Your task to perform on an android device: Clear the shopping cart on costco.com. Add "acer predator" to the cart on costco.com, then select checkout. Image 0: 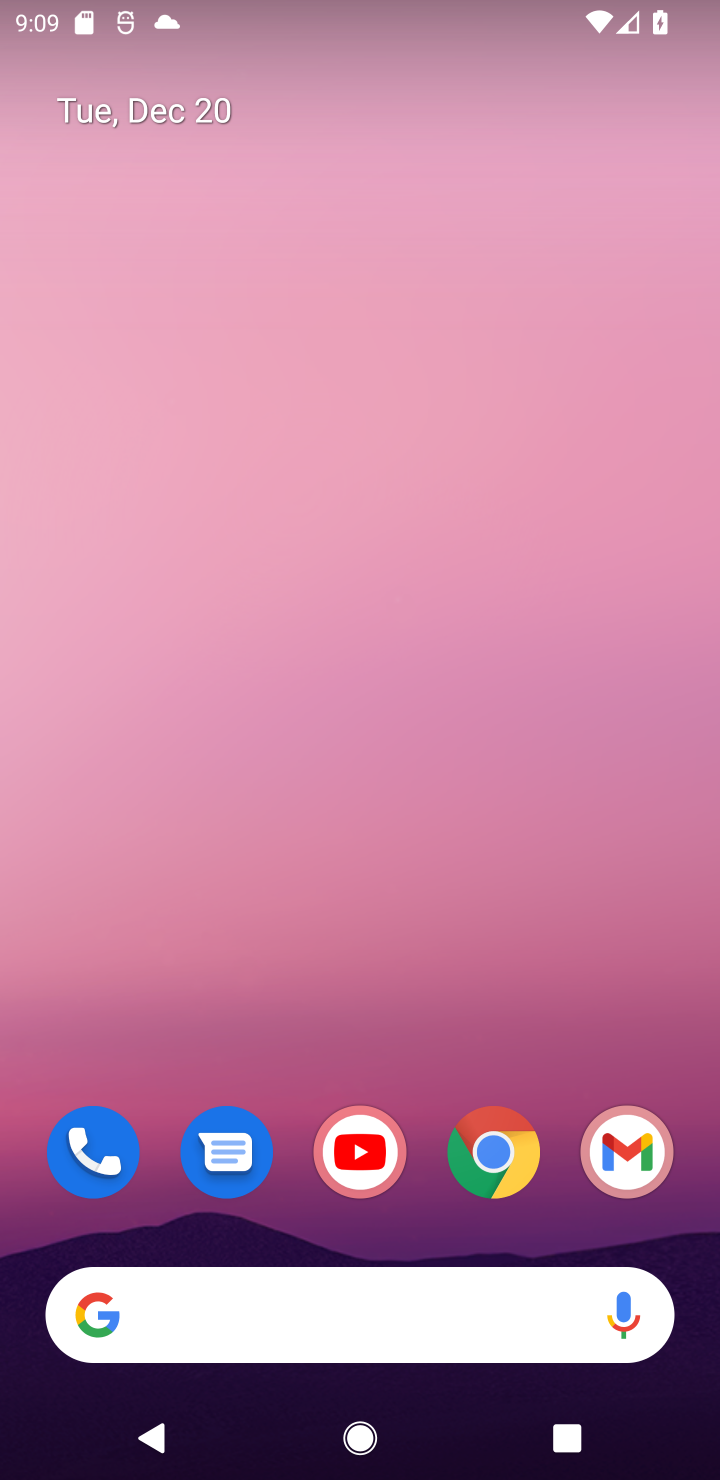
Step 0: click (477, 1143)
Your task to perform on an android device: Clear the shopping cart on costco.com. Add "acer predator" to the cart on costco.com, then select checkout. Image 1: 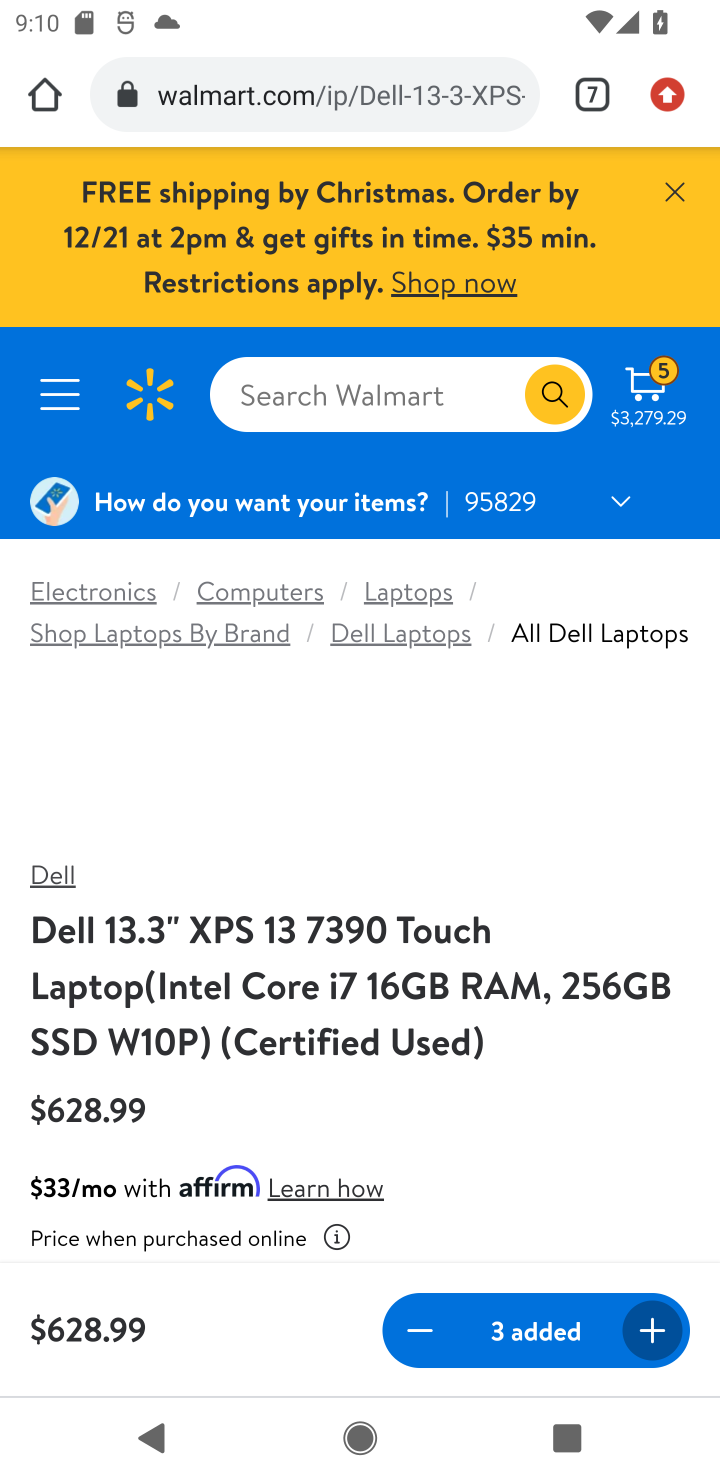
Step 1: click (659, 373)
Your task to perform on an android device: Clear the shopping cart on costco.com. Add "acer predator" to the cart on costco.com, then select checkout. Image 2: 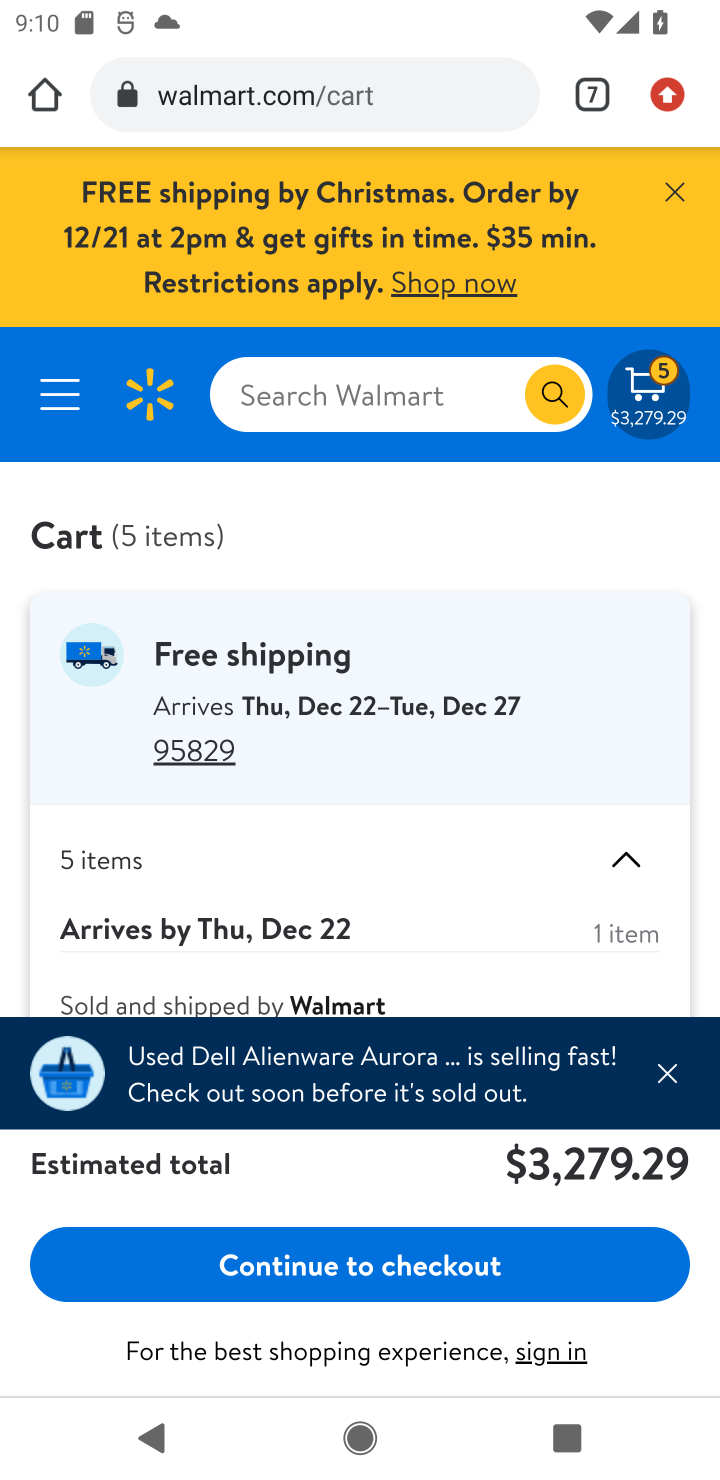
Step 2: drag from (553, 825) to (604, 279)
Your task to perform on an android device: Clear the shopping cart on costco.com. Add "acer predator" to the cart on costco.com, then select checkout. Image 3: 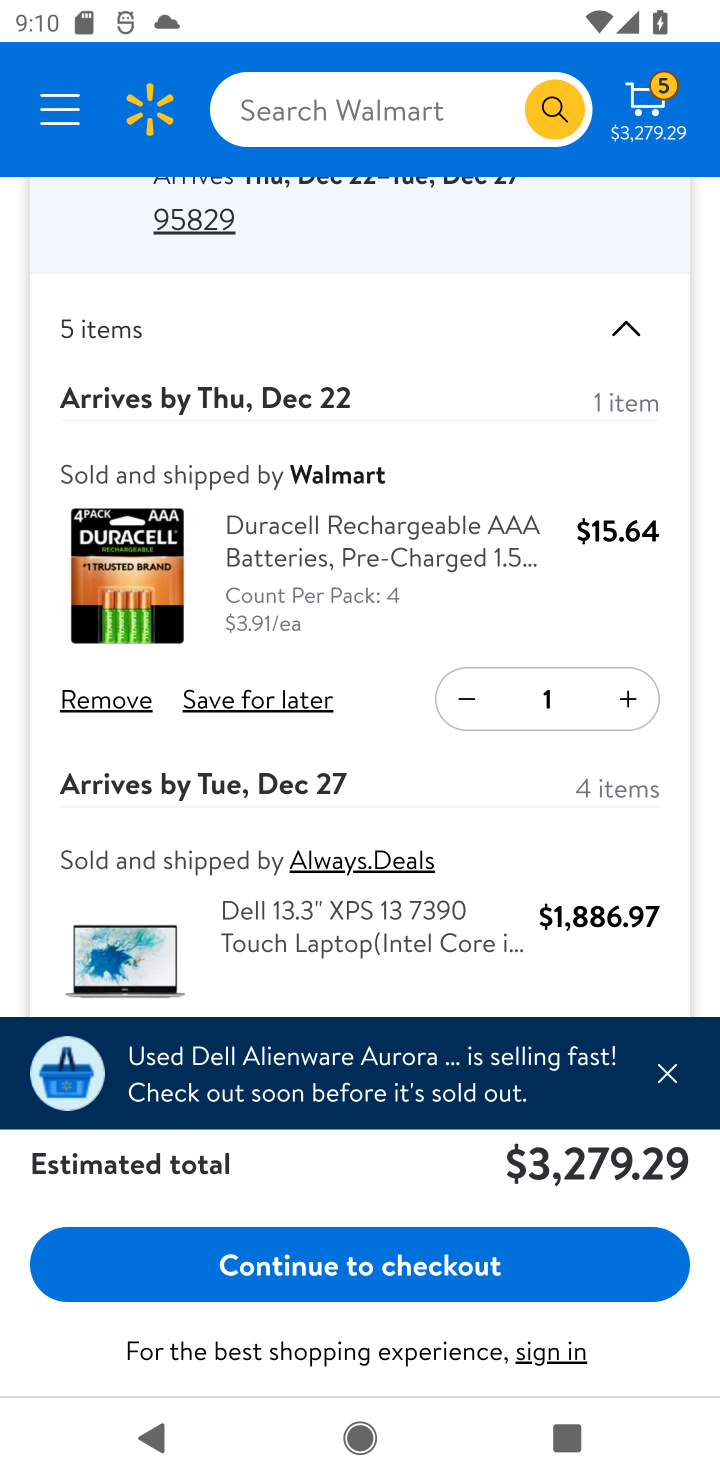
Step 3: click (113, 707)
Your task to perform on an android device: Clear the shopping cart on costco.com. Add "acer predator" to the cart on costco.com, then select checkout. Image 4: 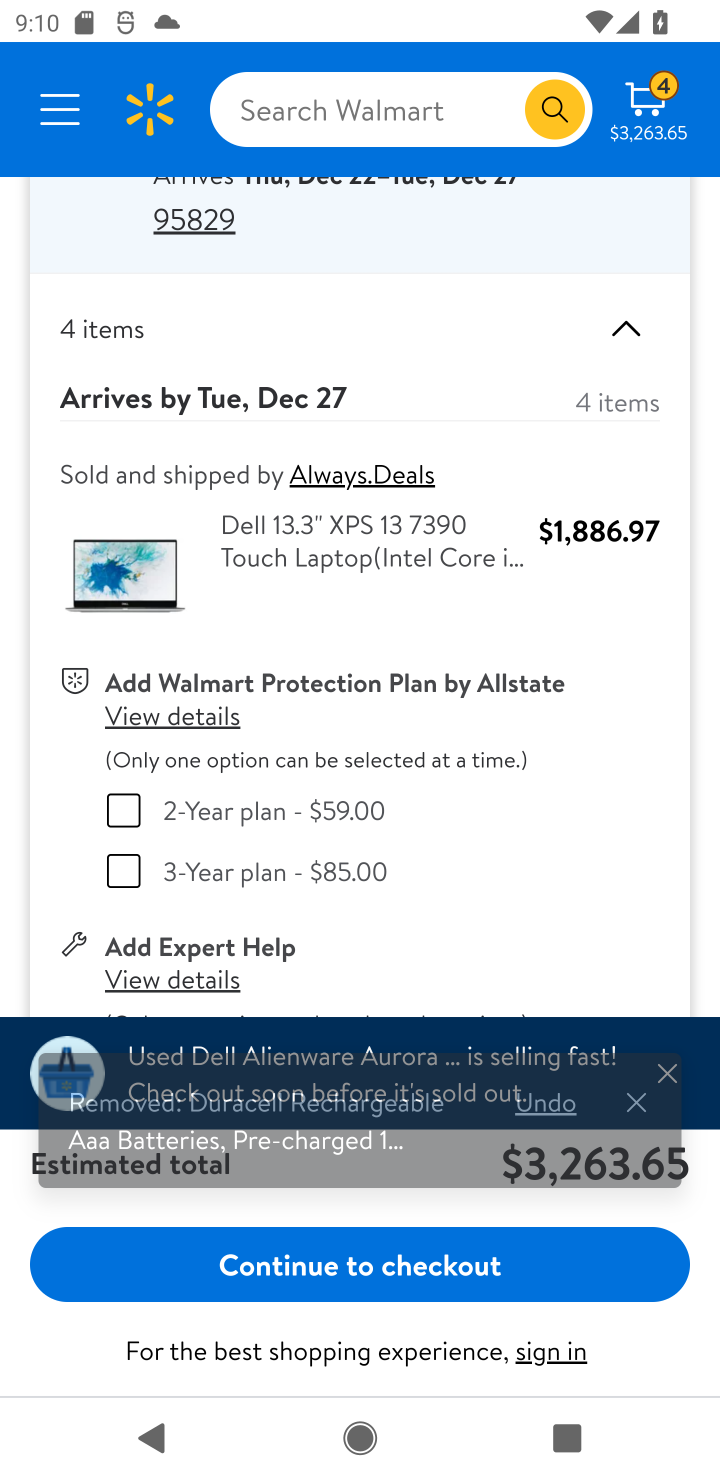
Step 4: drag from (144, 851) to (247, 177)
Your task to perform on an android device: Clear the shopping cart on costco.com. Add "acer predator" to the cart on costco.com, then select checkout. Image 5: 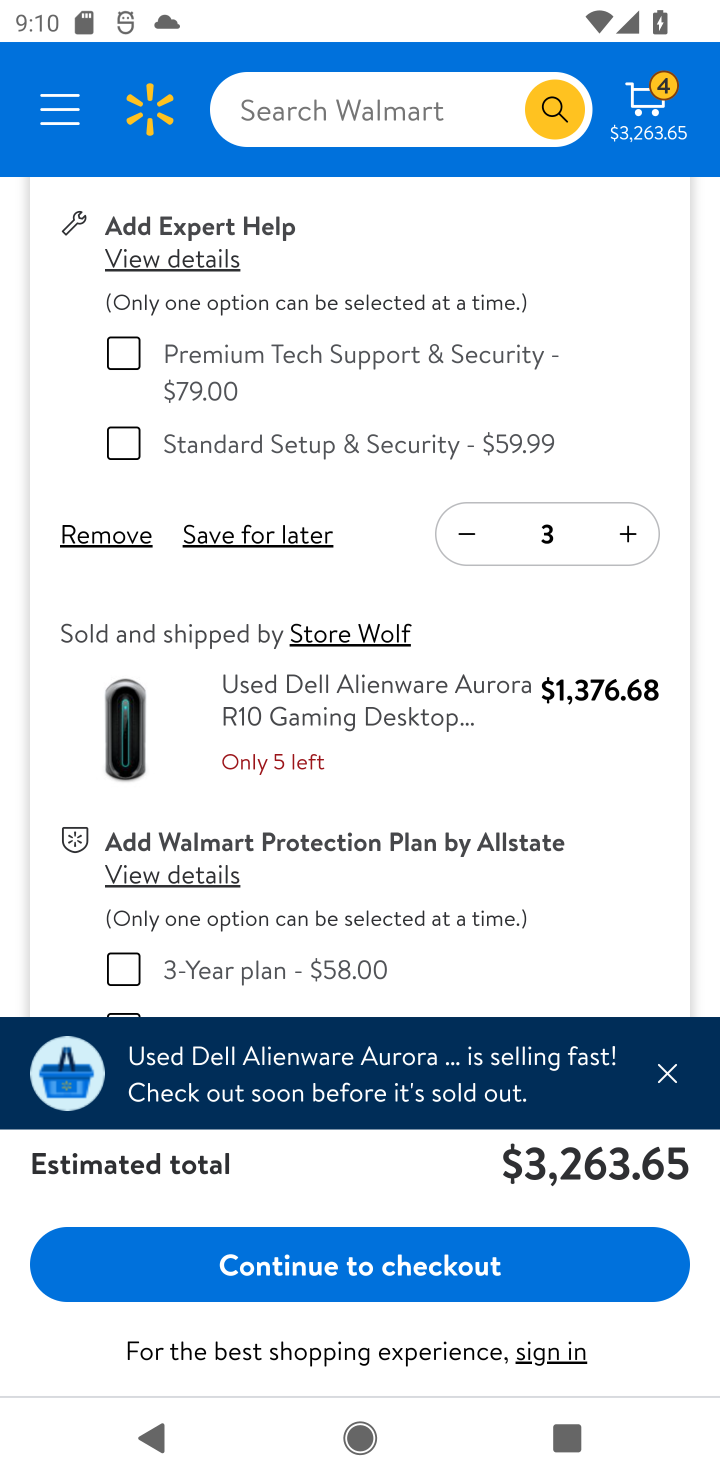
Step 5: click (108, 536)
Your task to perform on an android device: Clear the shopping cart on costco.com. Add "acer predator" to the cart on costco.com, then select checkout. Image 6: 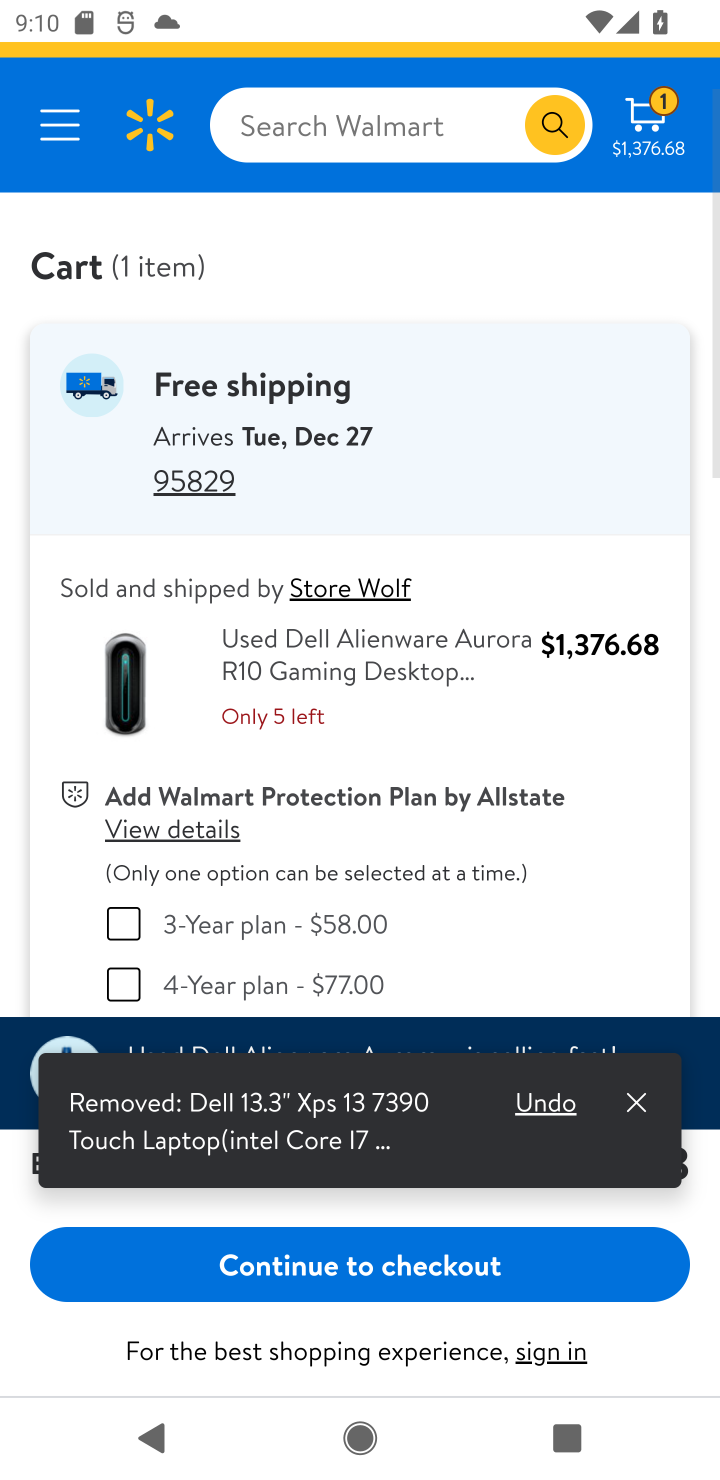
Step 6: drag from (125, 846) to (169, 387)
Your task to perform on an android device: Clear the shopping cart on costco.com. Add "acer predator" to the cart on costco.com, then select checkout. Image 7: 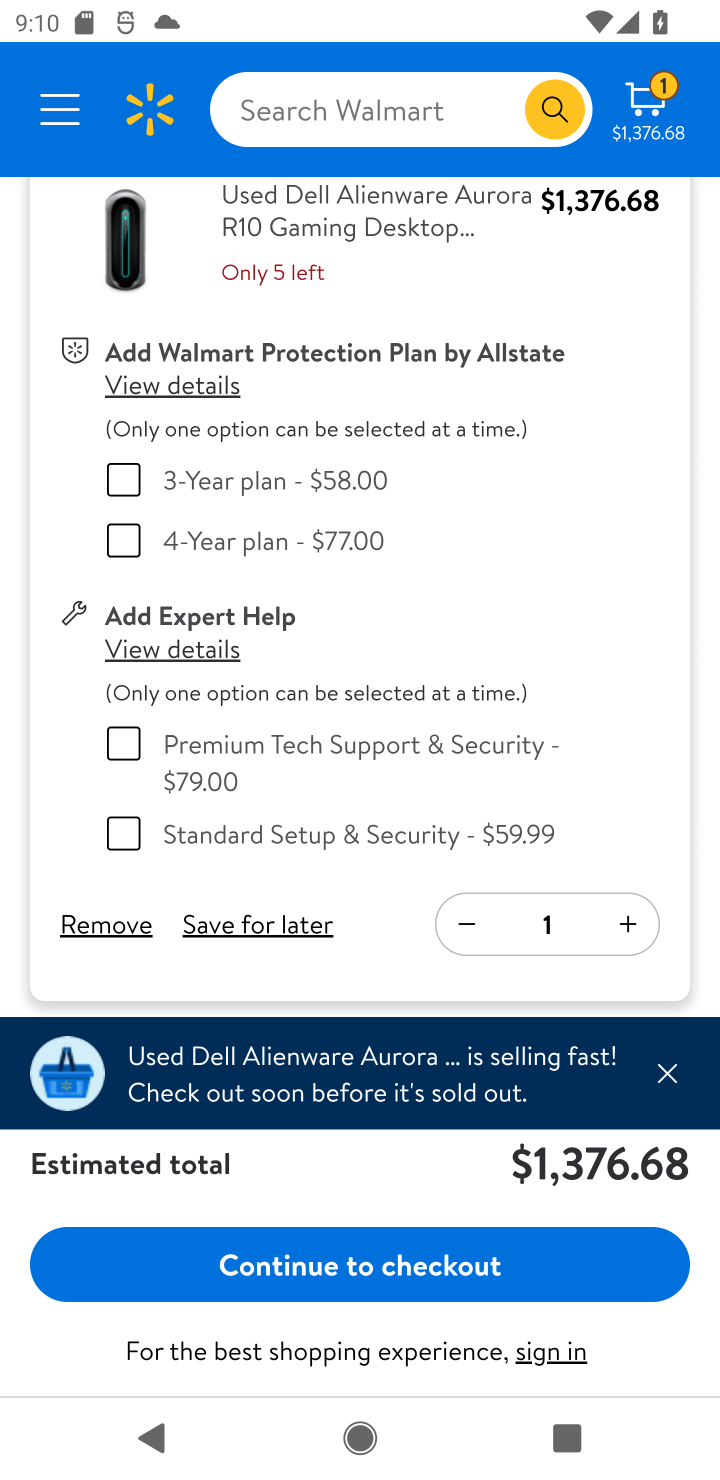
Step 7: click (110, 930)
Your task to perform on an android device: Clear the shopping cart on costco.com. Add "acer predator" to the cart on costco.com, then select checkout. Image 8: 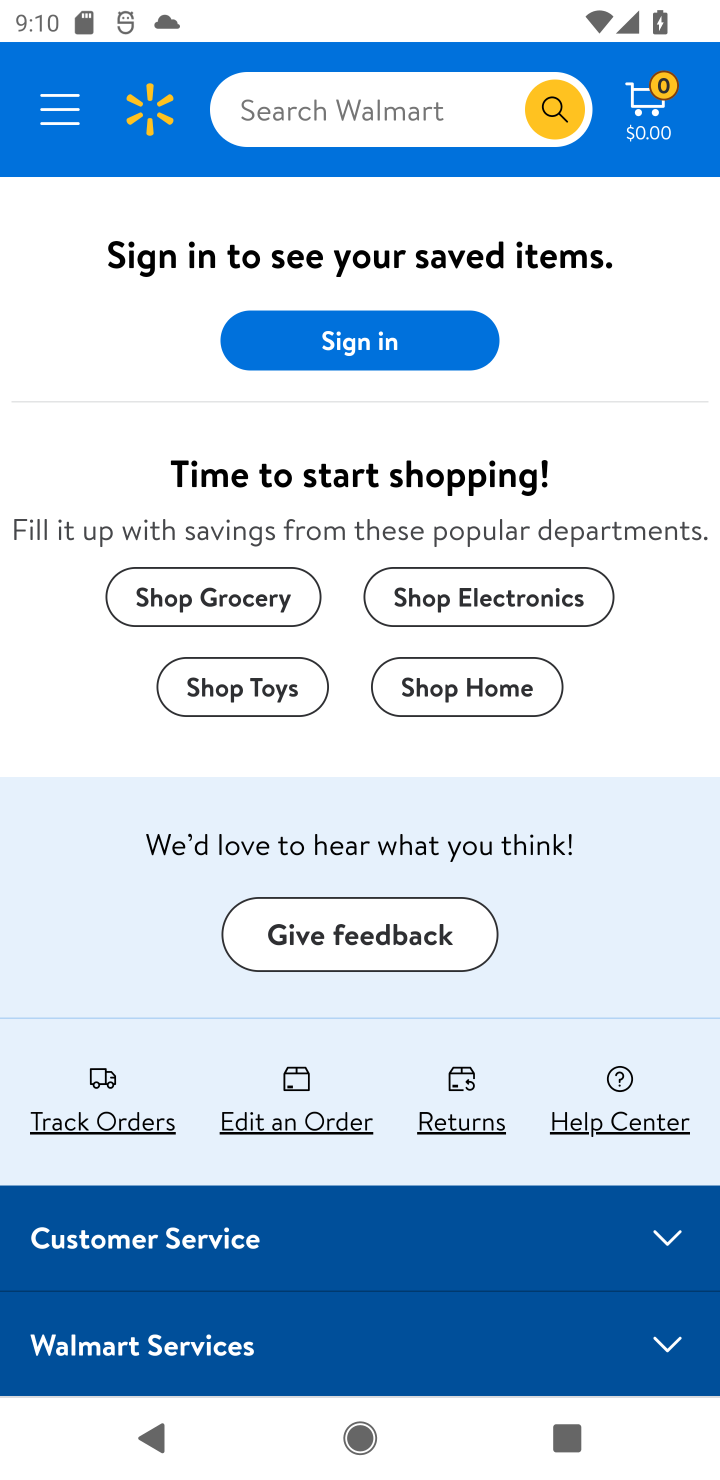
Step 8: click (324, 92)
Your task to perform on an android device: Clear the shopping cart on costco.com. Add "acer predator" to the cart on costco.com, then select checkout. Image 9: 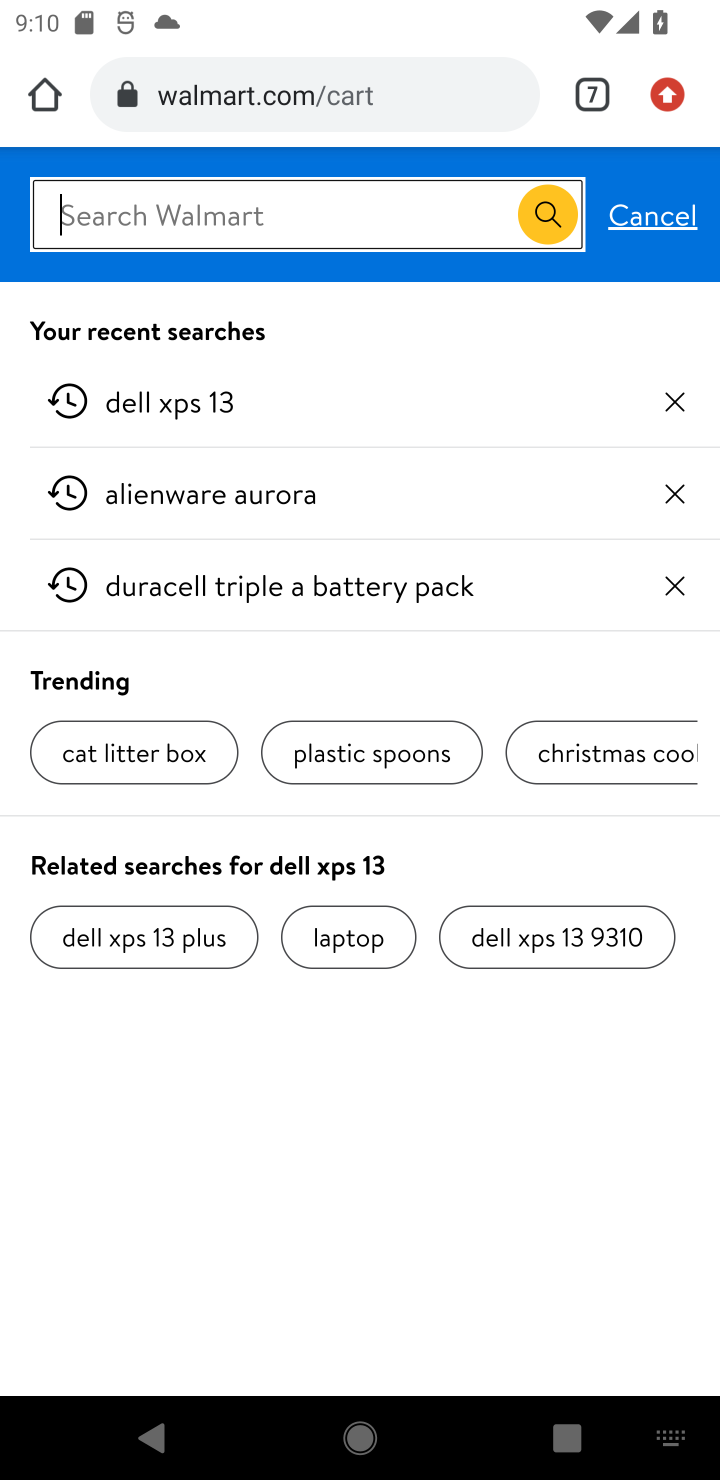
Step 9: type "acer predator"
Your task to perform on an android device: Clear the shopping cart on costco.com. Add "acer predator" to the cart on costco.com, then select checkout. Image 10: 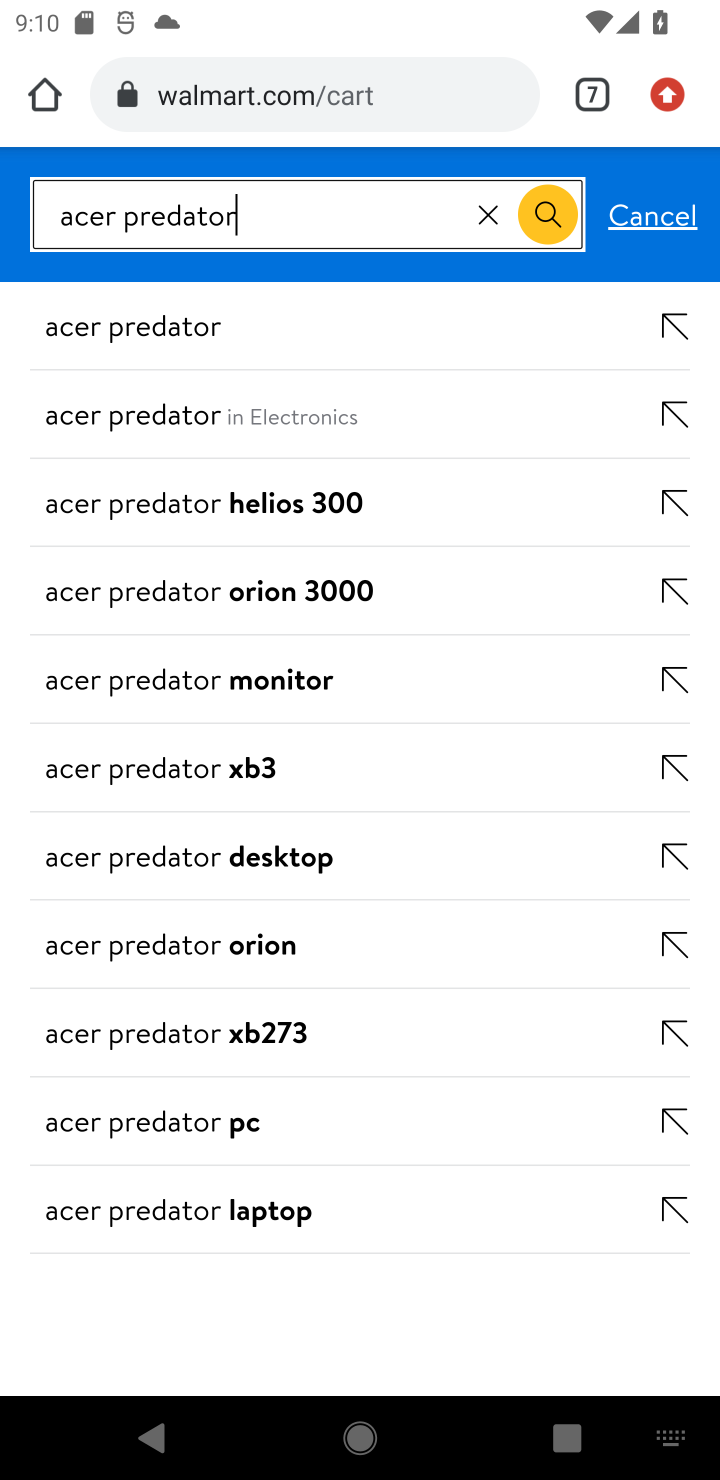
Step 10: click (117, 413)
Your task to perform on an android device: Clear the shopping cart on costco.com. Add "acer predator" to the cart on costco.com, then select checkout. Image 11: 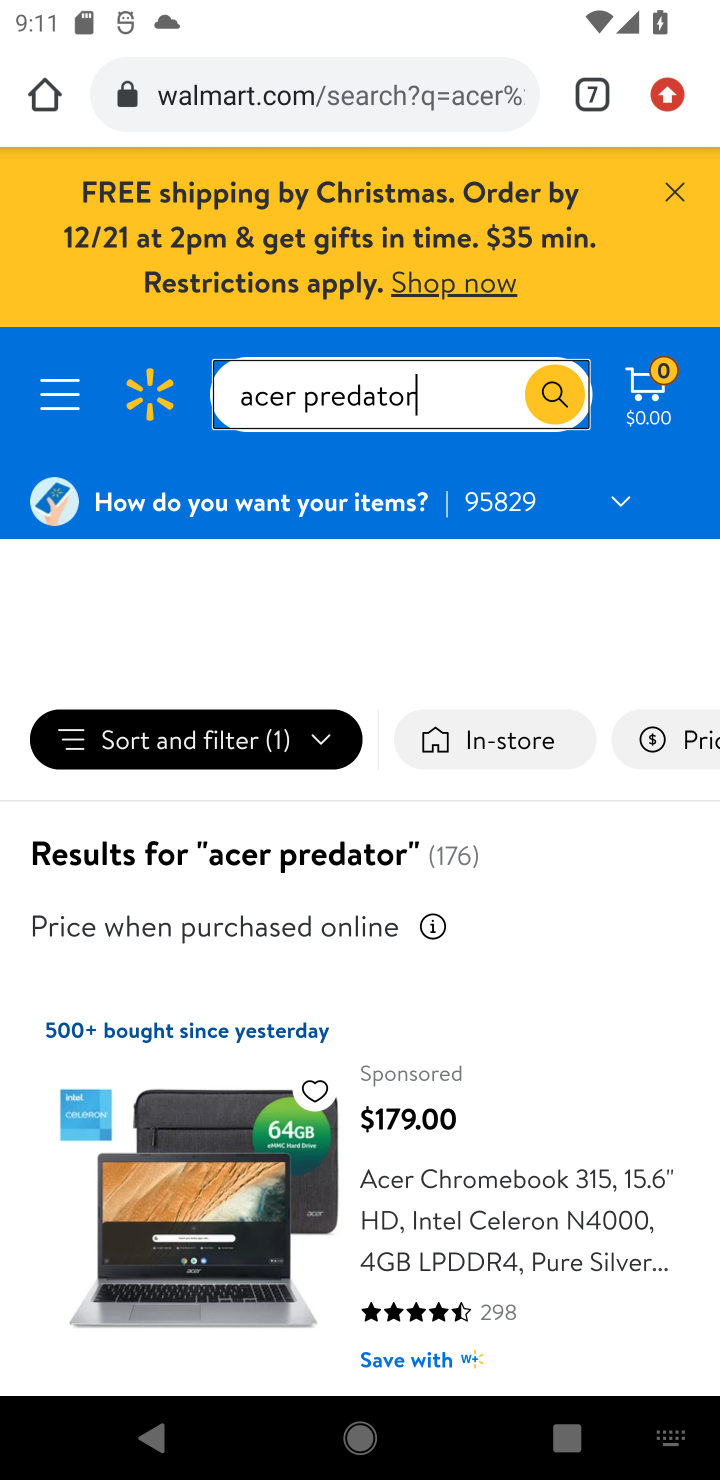
Step 11: drag from (518, 911) to (525, 304)
Your task to perform on an android device: Clear the shopping cart on costco.com. Add "acer predator" to the cart on costco.com, then select checkout. Image 12: 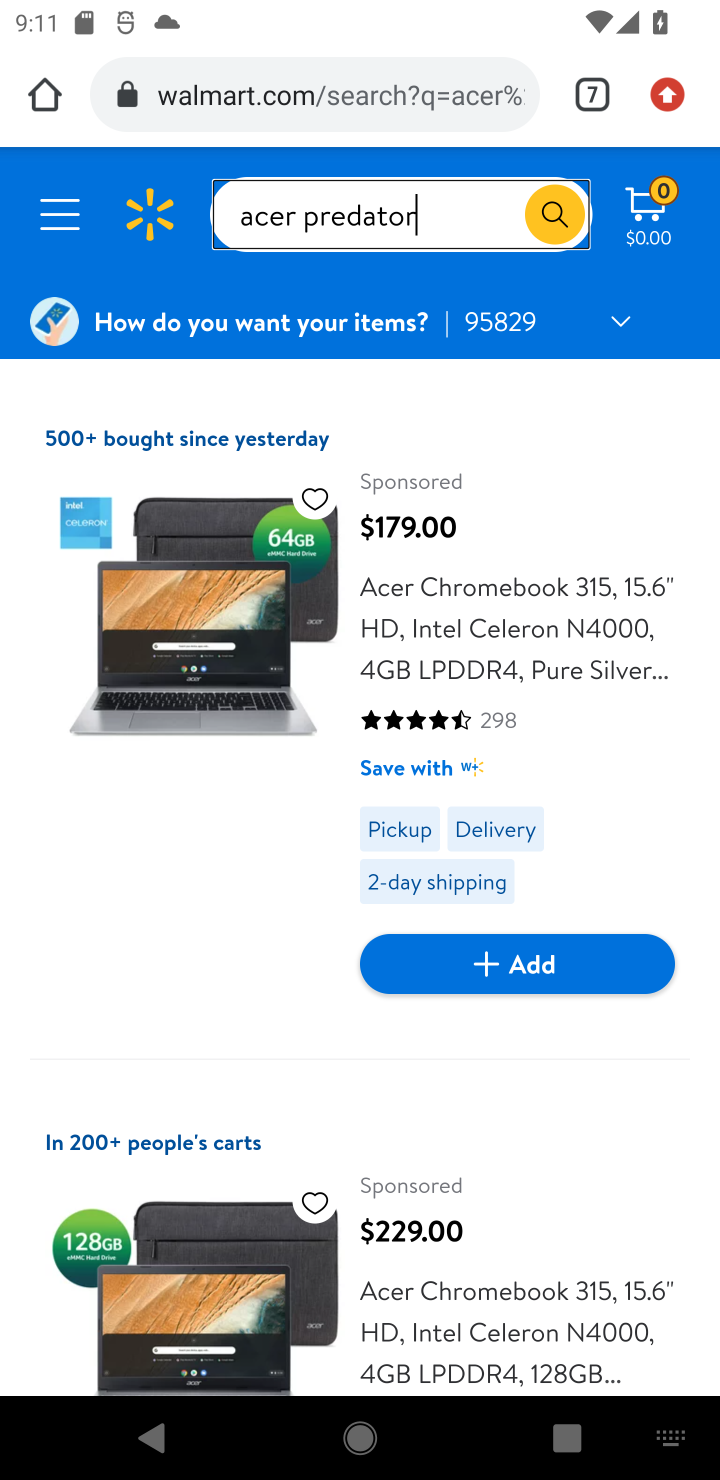
Step 12: drag from (476, 1097) to (613, 623)
Your task to perform on an android device: Clear the shopping cart on costco.com. Add "acer predator" to the cart on costco.com, then select checkout. Image 13: 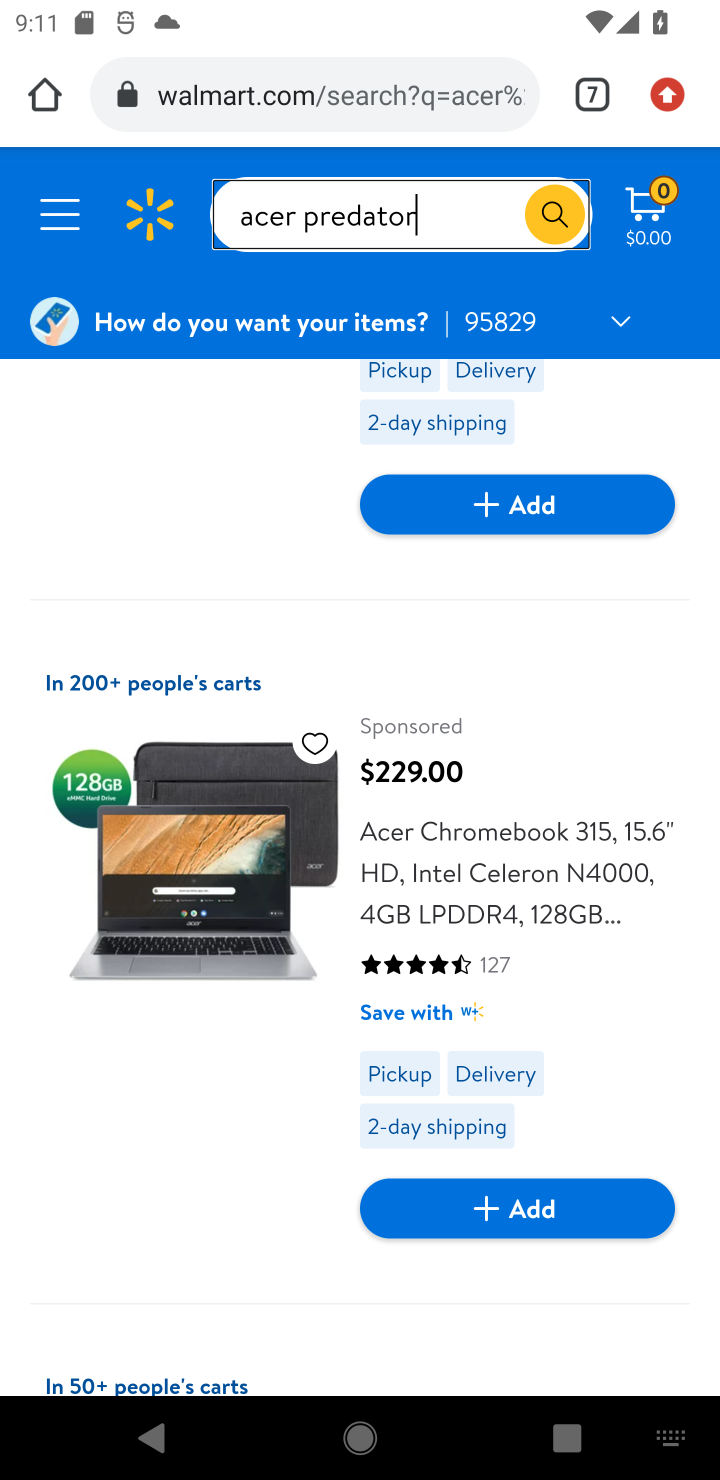
Step 13: drag from (572, 1240) to (635, 495)
Your task to perform on an android device: Clear the shopping cart on costco.com. Add "acer predator" to the cart on costco.com, then select checkout. Image 14: 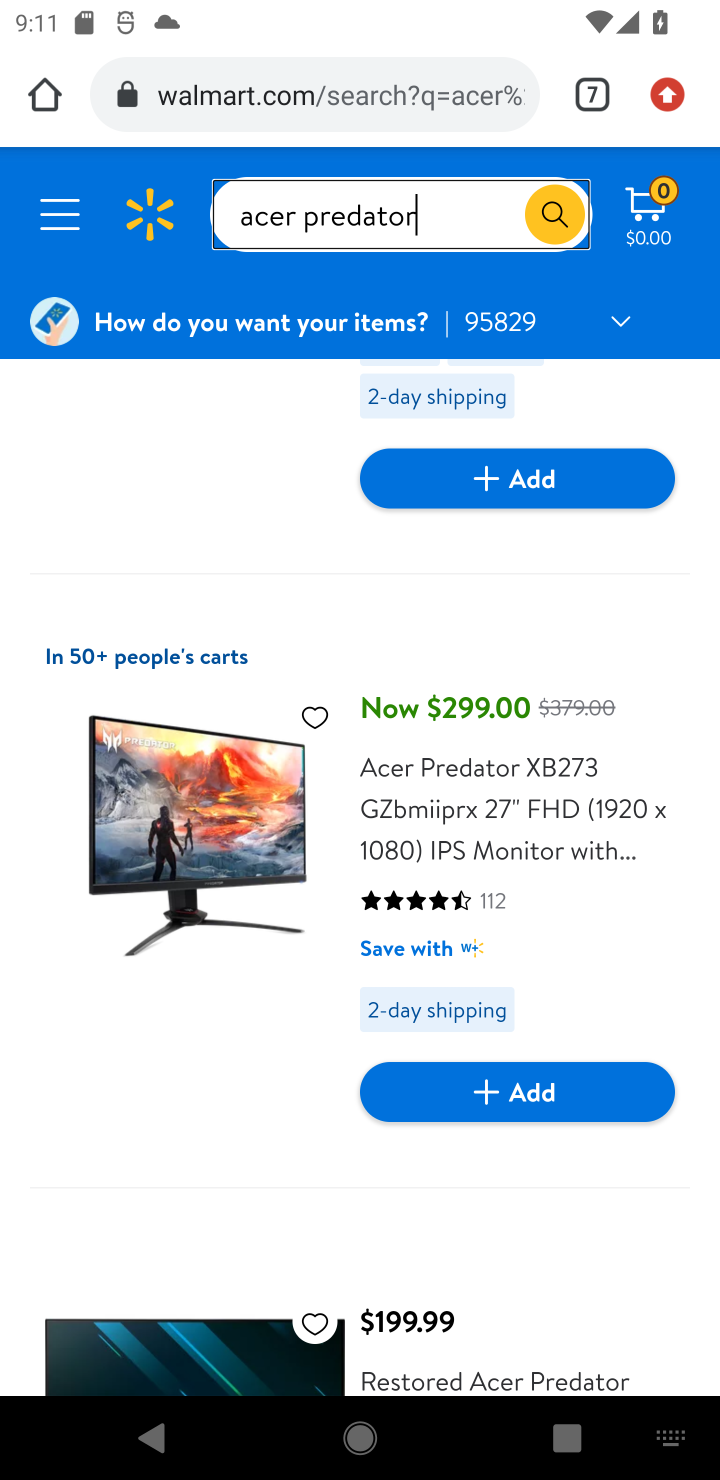
Step 14: click (542, 1086)
Your task to perform on an android device: Clear the shopping cart on costco.com. Add "acer predator" to the cart on costco.com, then select checkout. Image 15: 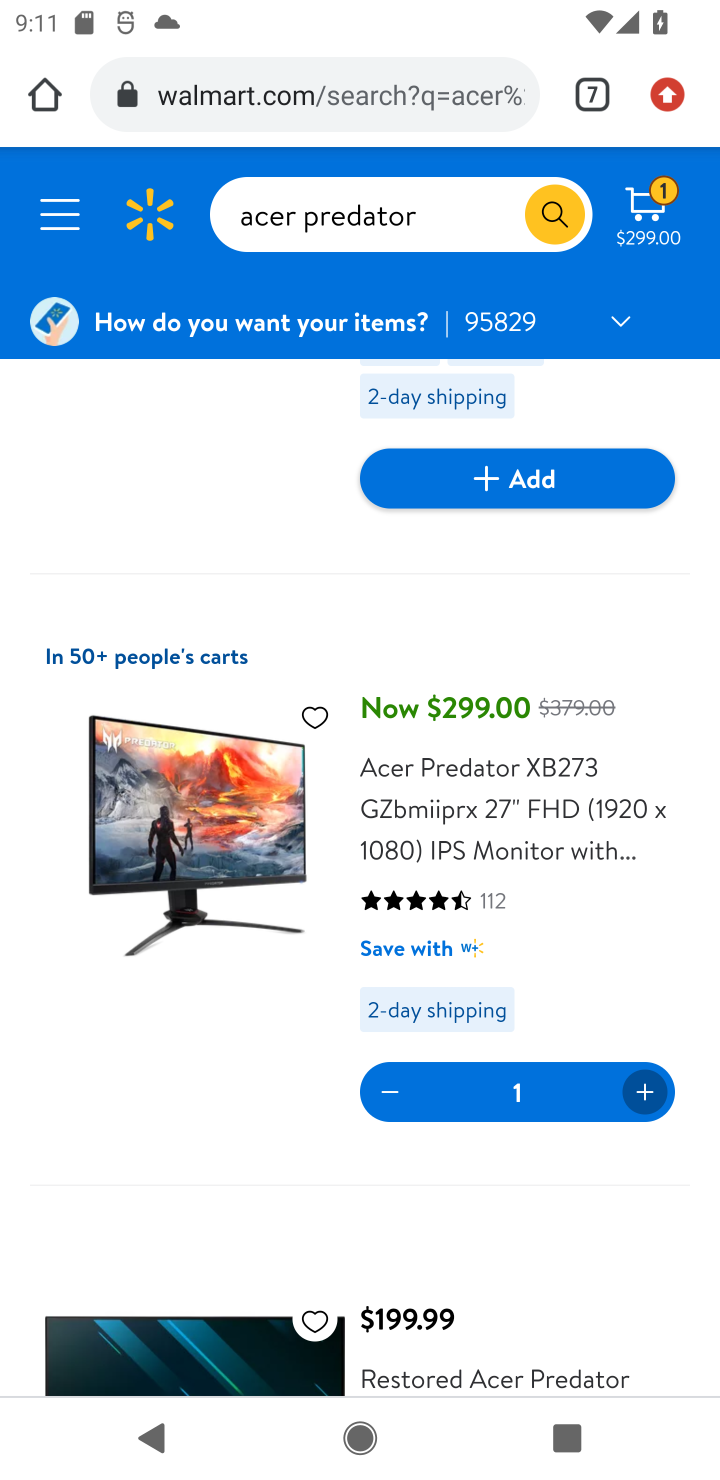
Step 15: task complete